Your task to perform on an android device: Show me productivity apps on the Play Store Image 0: 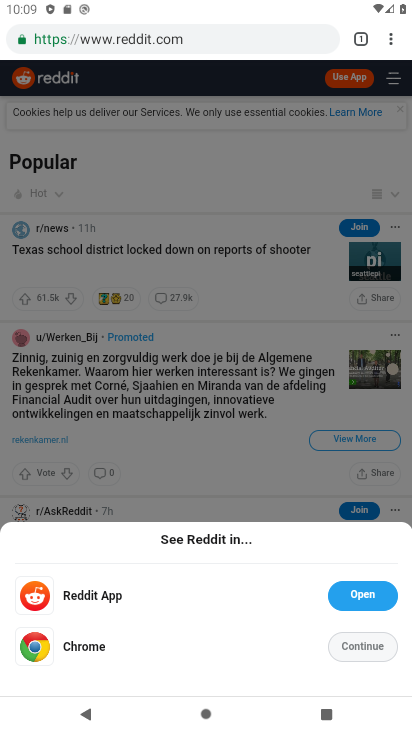
Step 0: press home button
Your task to perform on an android device: Show me productivity apps on the Play Store Image 1: 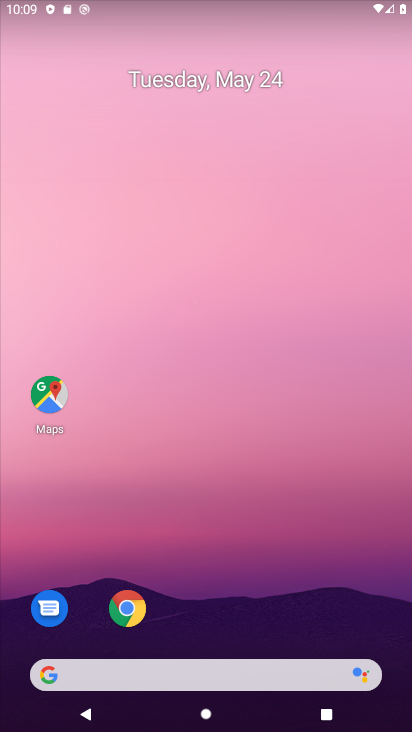
Step 1: drag from (371, 624) to (265, 11)
Your task to perform on an android device: Show me productivity apps on the Play Store Image 2: 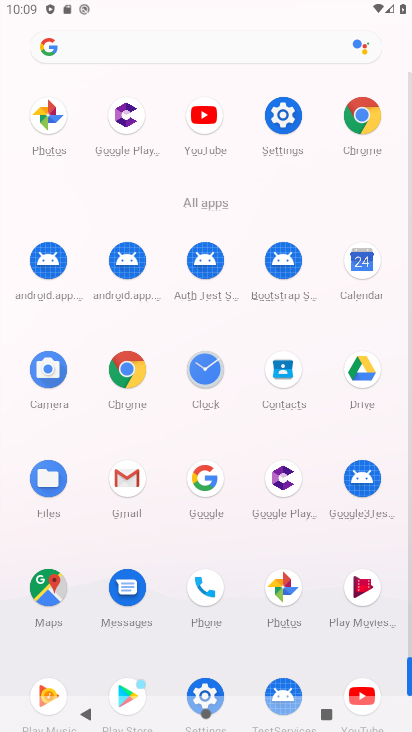
Step 2: click (410, 646)
Your task to perform on an android device: Show me productivity apps on the Play Store Image 3: 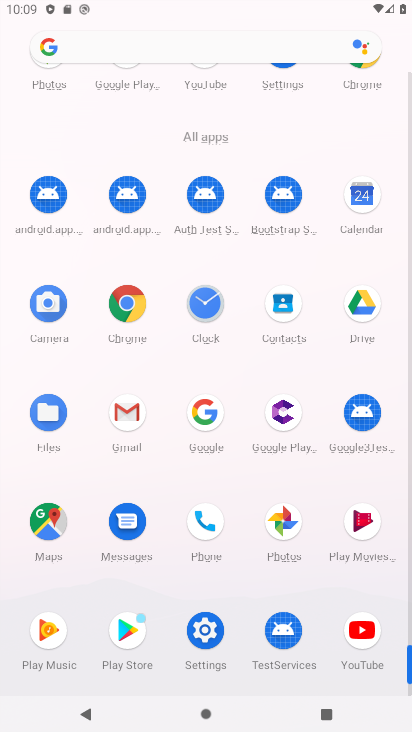
Step 3: click (132, 631)
Your task to perform on an android device: Show me productivity apps on the Play Store Image 4: 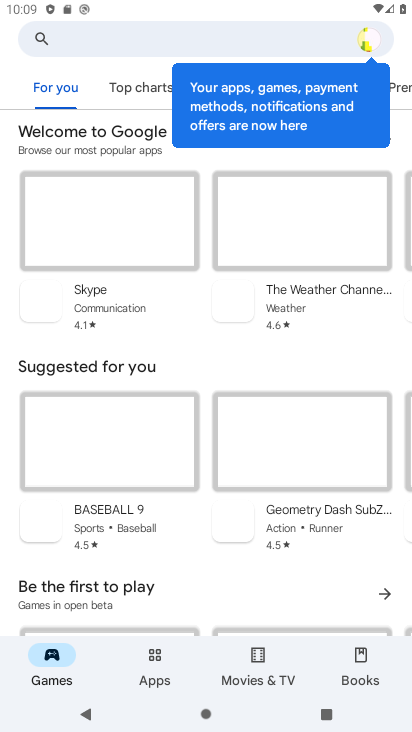
Step 4: click (155, 656)
Your task to perform on an android device: Show me productivity apps on the Play Store Image 5: 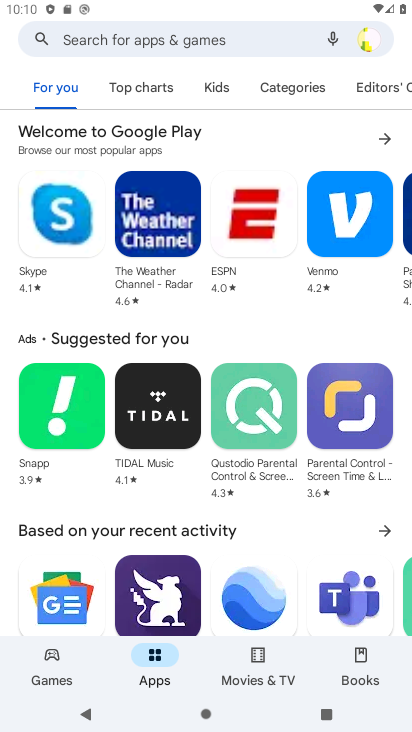
Step 5: click (291, 88)
Your task to perform on an android device: Show me productivity apps on the Play Store Image 6: 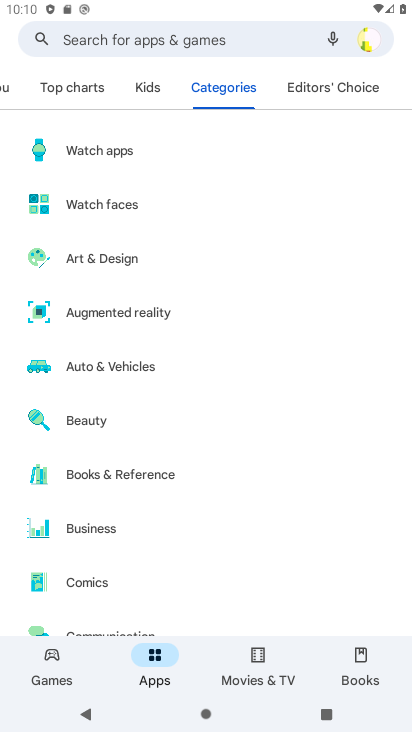
Step 6: drag from (215, 580) to (221, 85)
Your task to perform on an android device: Show me productivity apps on the Play Store Image 7: 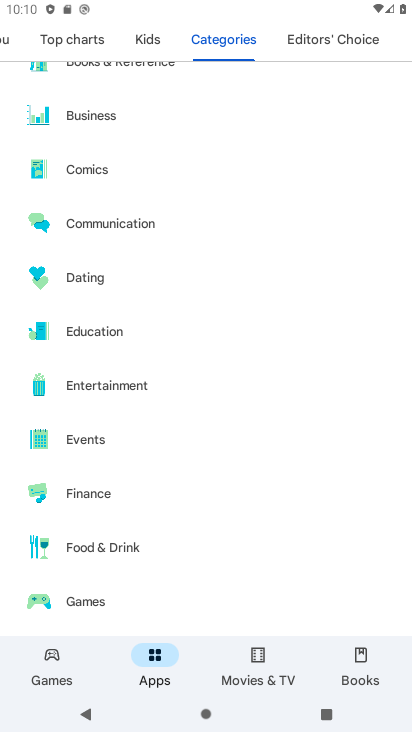
Step 7: drag from (212, 584) to (210, 111)
Your task to perform on an android device: Show me productivity apps on the Play Store Image 8: 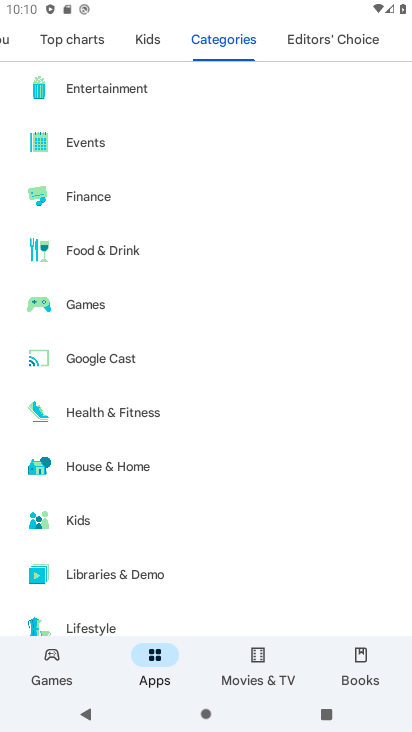
Step 8: drag from (205, 582) to (195, 83)
Your task to perform on an android device: Show me productivity apps on the Play Store Image 9: 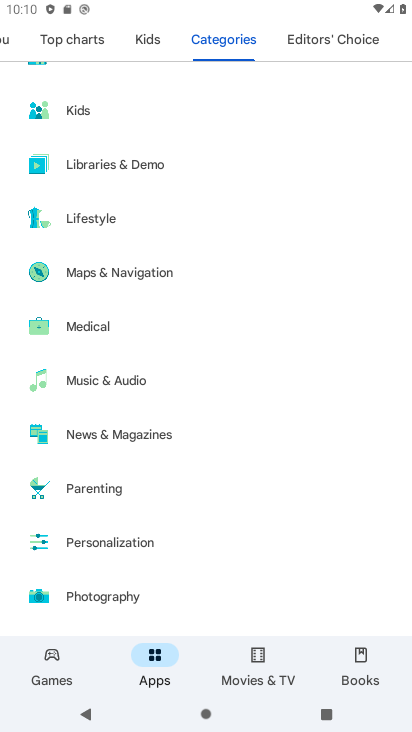
Step 9: drag from (218, 589) to (243, 58)
Your task to perform on an android device: Show me productivity apps on the Play Store Image 10: 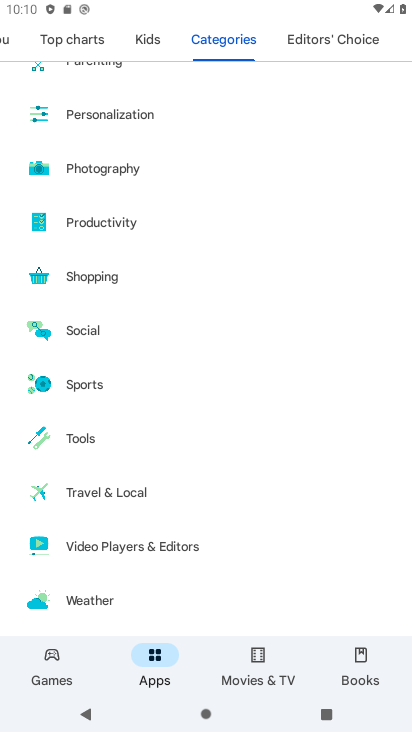
Step 10: click (90, 219)
Your task to perform on an android device: Show me productivity apps on the Play Store Image 11: 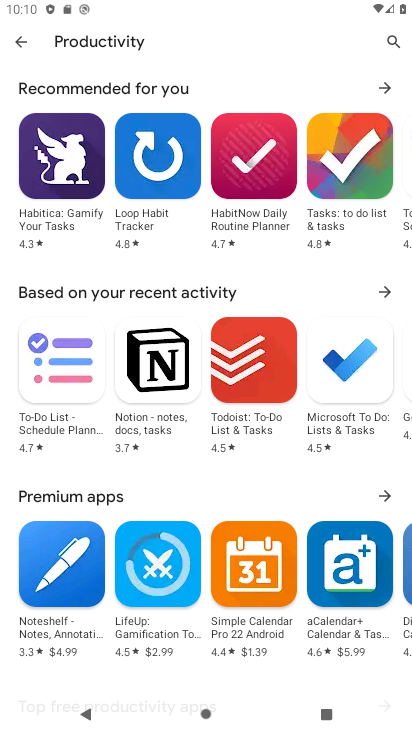
Step 11: drag from (236, 492) to (220, 126)
Your task to perform on an android device: Show me productivity apps on the Play Store Image 12: 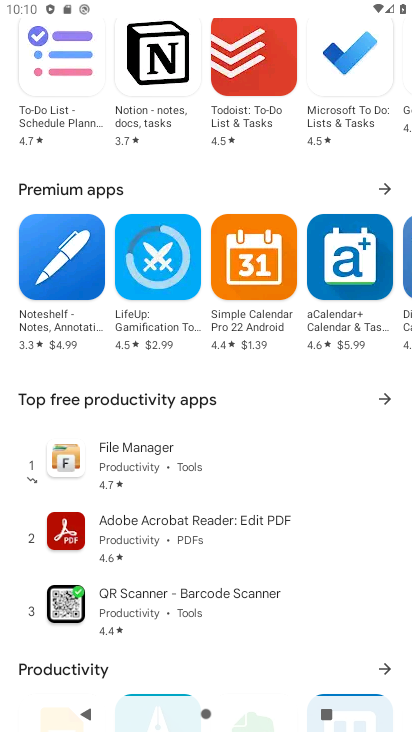
Step 12: click (385, 397)
Your task to perform on an android device: Show me productivity apps on the Play Store Image 13: 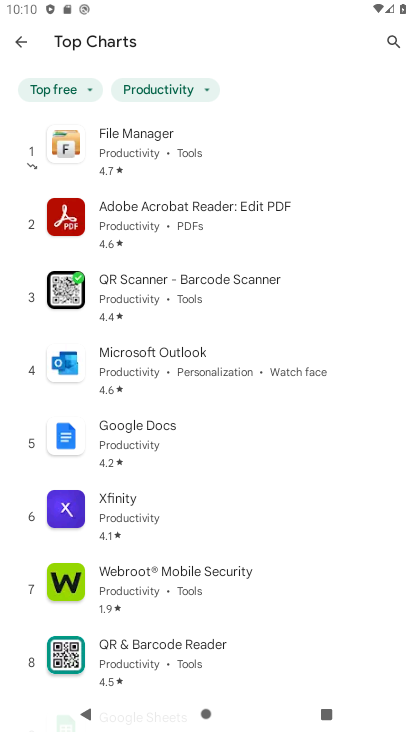
Step 13: task complete